Your task to perform on an android device: Open Amazon Image 0: 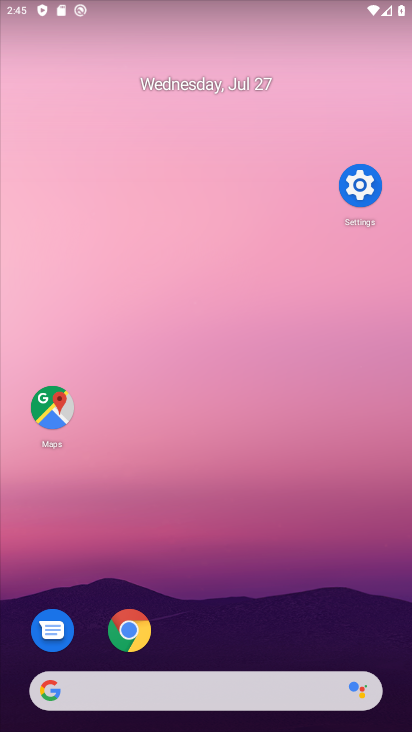
Step 0: press home button
Your task to perform on an android device: Open Amazon Image 1: 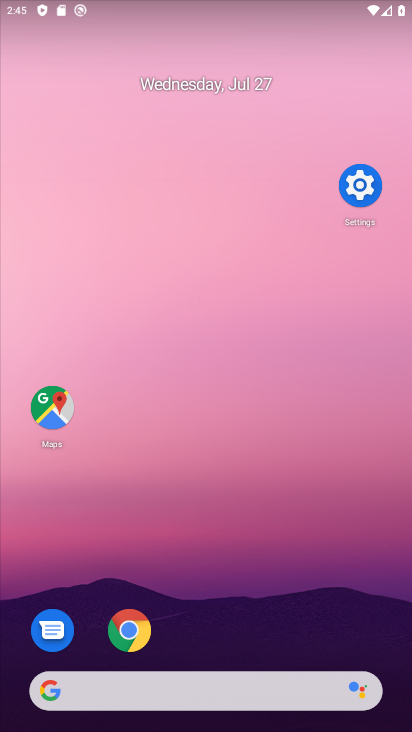
Step 1: click (43, 695)
Your task to perform on an android device: Open Amazon Image 2: 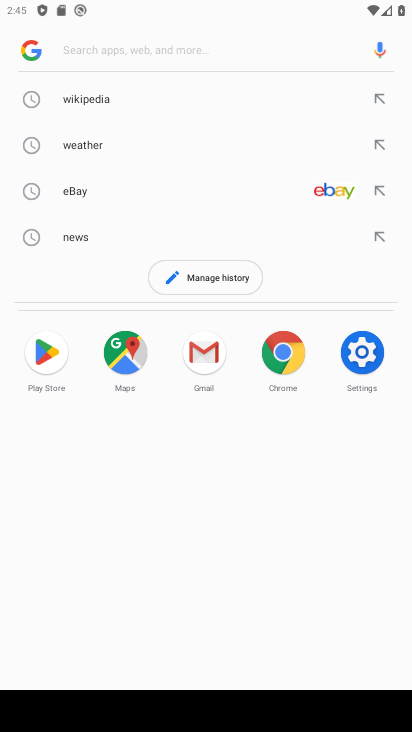
Step 2: type "Amazon"
Your task to perform on an android device: Open Amazon Image 3: 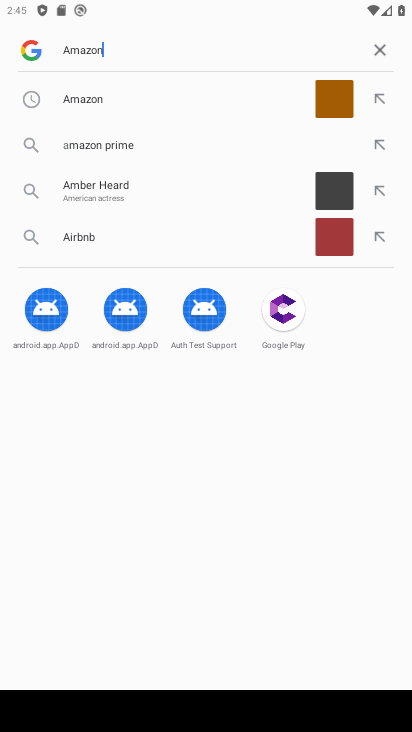
Step 3: press enter
Your task to perform on an android device: Open Amazon Image 4: 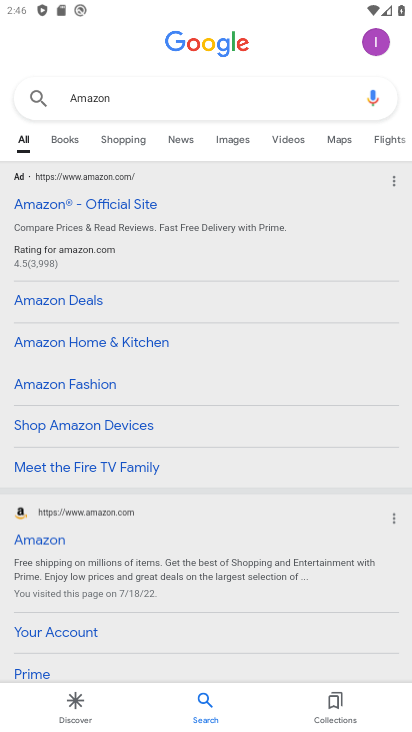
Step 4: click (59, 208)
Your task to perform on an android device: Open Amazon Image 5: 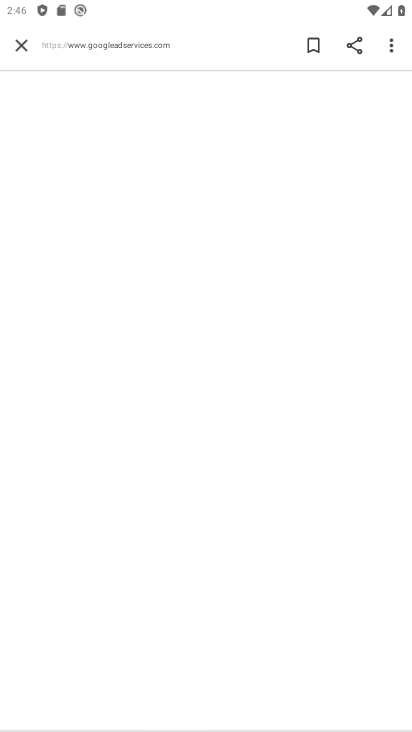
Step 5: click (59, 208)
Your task to perform on an android device: Open Amazon Image 6: 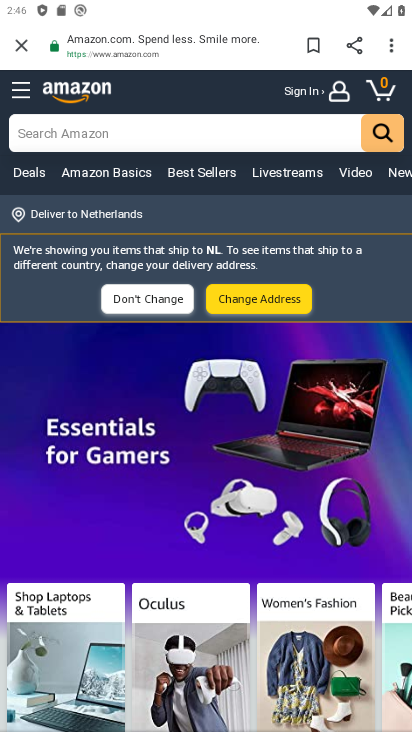
Step 6: task complete